Your task to perform on an android device: Go to network settings Image 0: 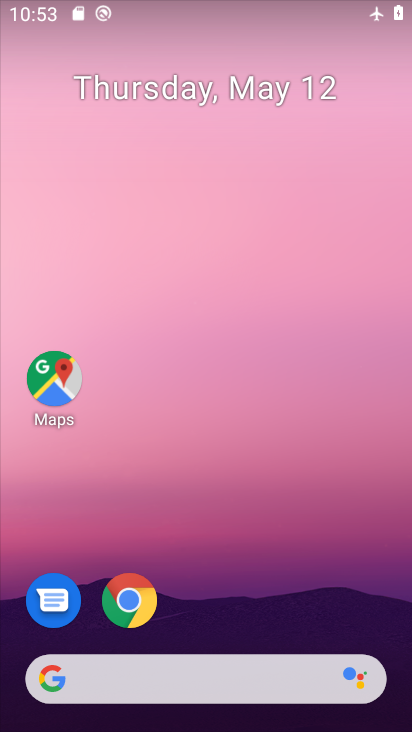
Step 0: drag from (196, 543) to (124, 106)
Your task to perform on an android device: Go to network settings Image 1: 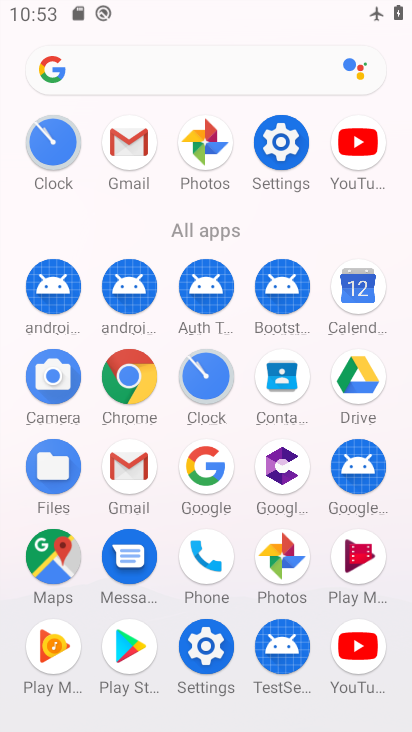
Step 1: click (272, 160)
Your task to perform on an android device: Go to network settings Image 2: 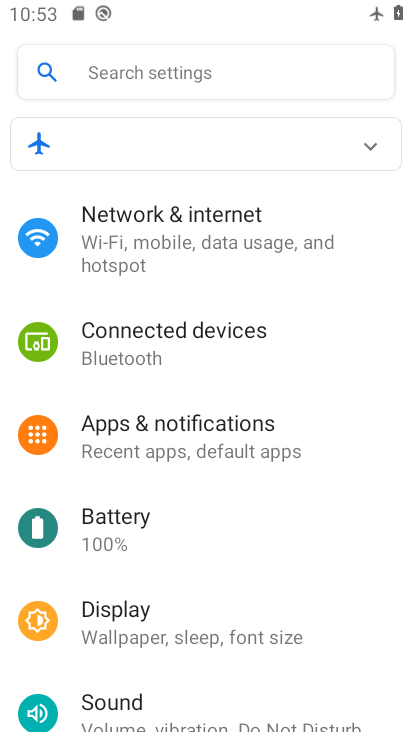
Step 2: click (159, 221)
Your task to perform on an android device: Go to network settings Image 3: 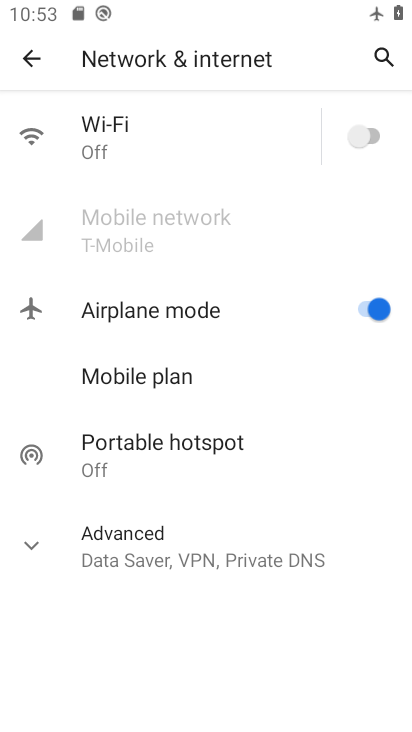
Step 3: click (159, 221)
Your task to perform on an android device: Go to network settings Image 4: 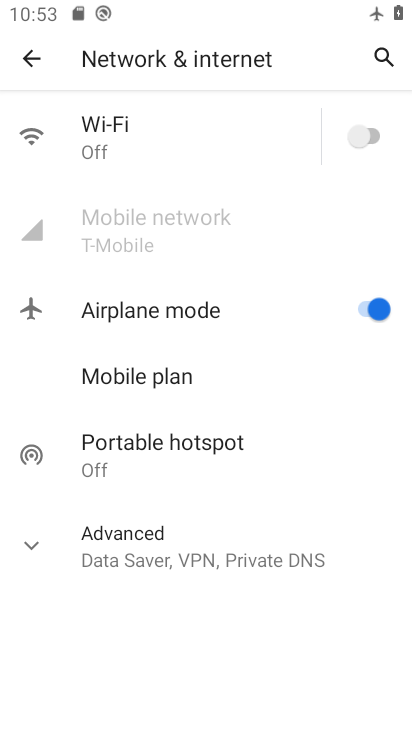
Step 4: task complete